Your task to perform on an android device: Do I have any events today? Image 0: 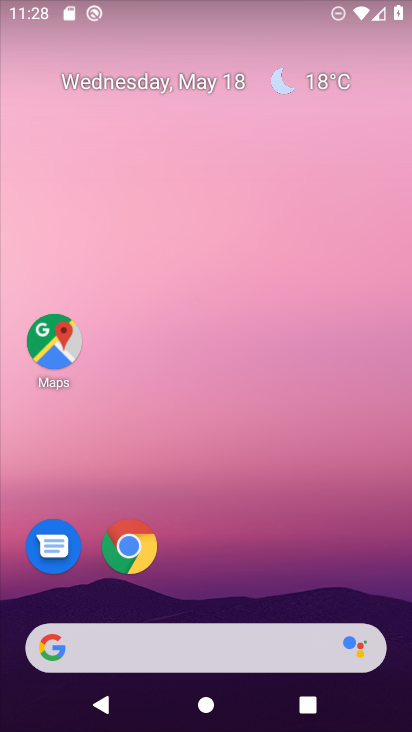
Step 0: drag from (223, 726) to (192, 116)
Your task to perform on an android device: Do I have any events today? Image 1: 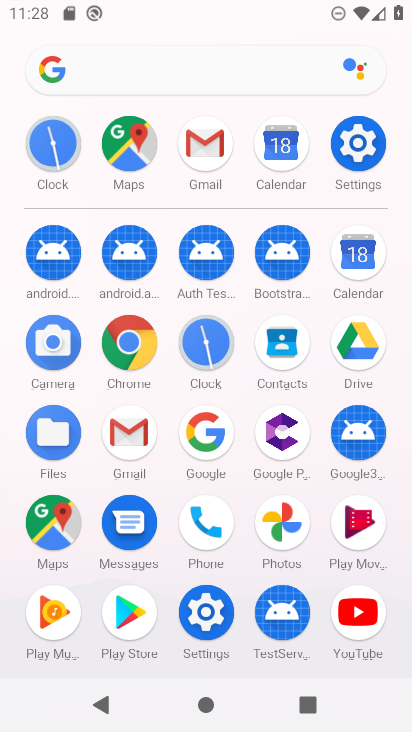
Step 1: click (360, 257)
Your task to perform on an android device: Do I have any events today? Image 2: 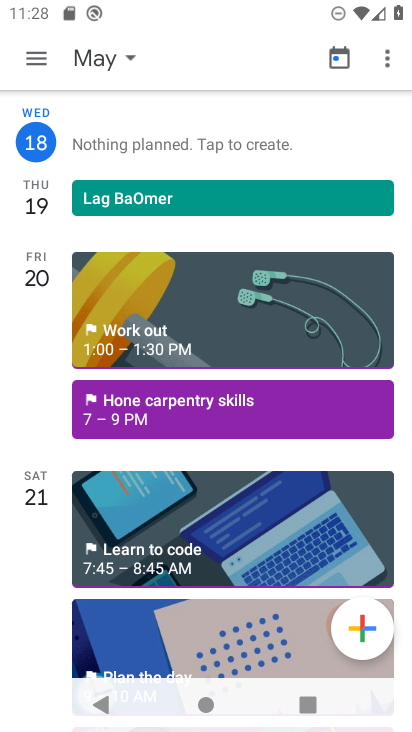
Step 2: click (35, 53)
Your task to perform on an android device: Do I have any events today? Image 3: 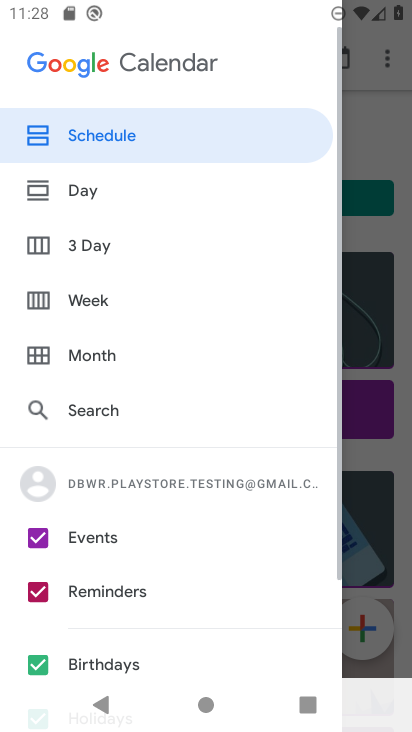
Step 3: drag from (72, 610) to (67, 405)
Your task to perform on an android device: Do I have any events today? Image 4: 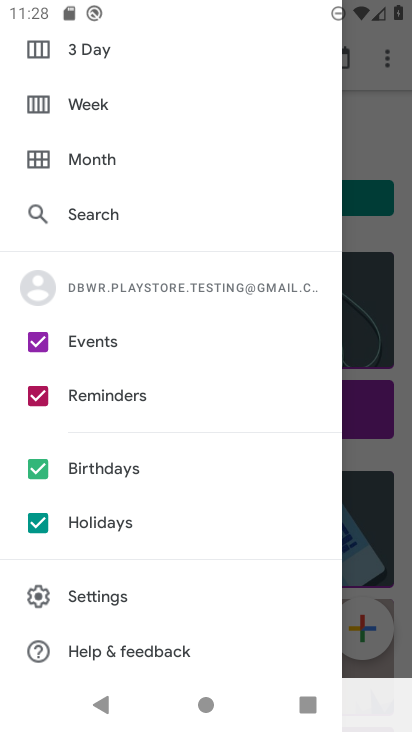
Step 4: click (35, 524)
Your task to perform on an android device: Do I have any events today? Image 5: 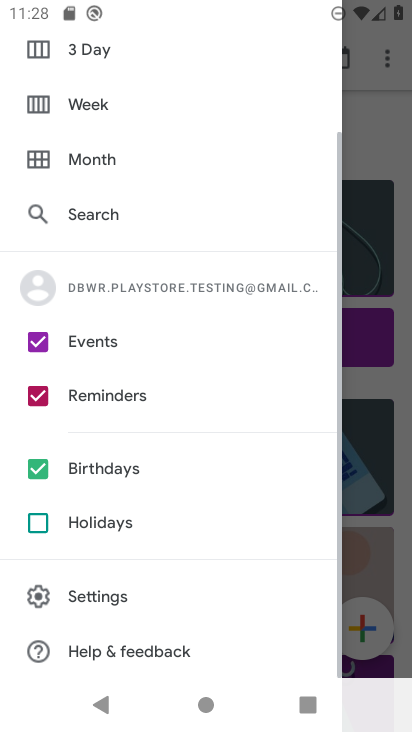
Step 5: click (39, 465)
Your task to perform on an android device: Do I have any events today? Image 6: 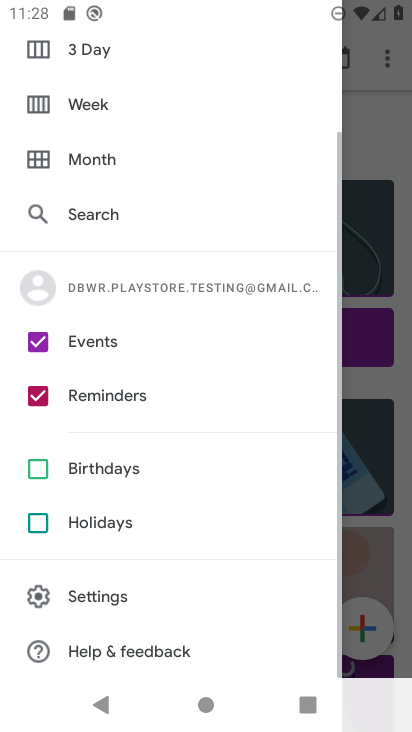
Step 6: click (35, 392)
Your task to perform on an android device: Do I have any events today? Image 7: 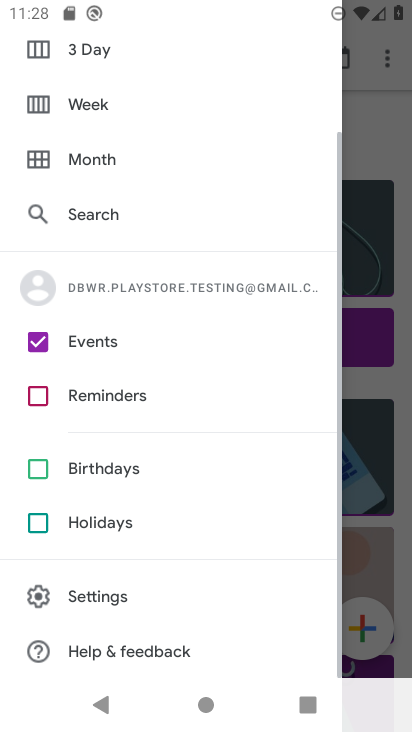
Step 7: drag from (291, 175) to (254, 579)
Your task to perform on an android device: Do I have any events today? Image 8: 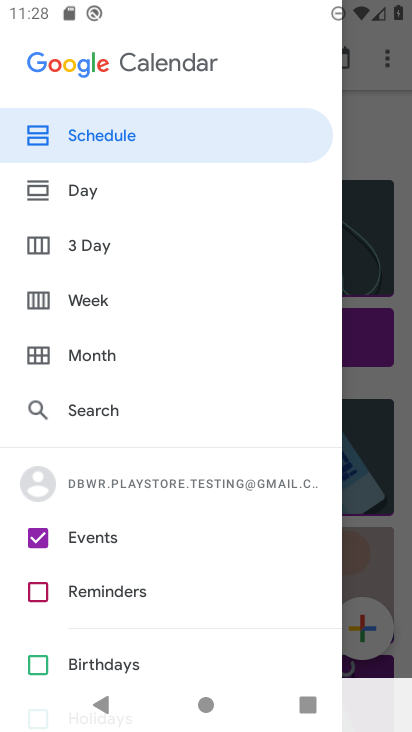
Step 8: click (100, 140)
Your task to perform on an android device: Do I have any events today? Image 9: 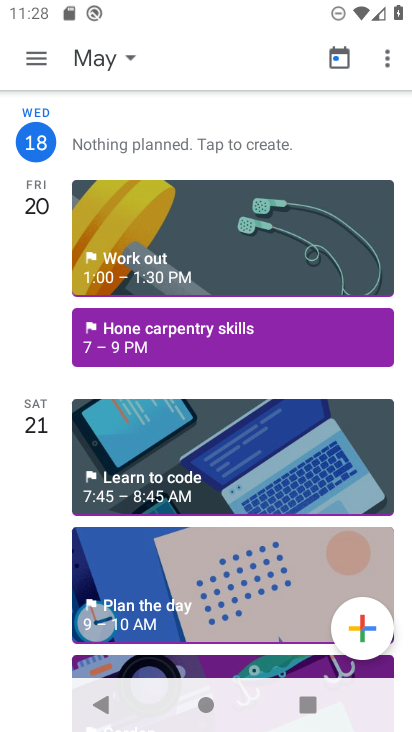
Step 9: click (99, 59)
Your task to perform on an android device: Do I have any events today? Image 10: 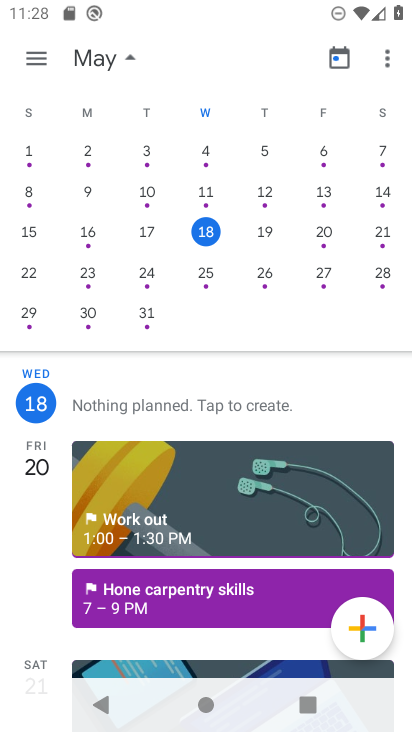
Step 10: click (211, 223)
Your task to perform on an android device: Do I have any events today? Image 11: 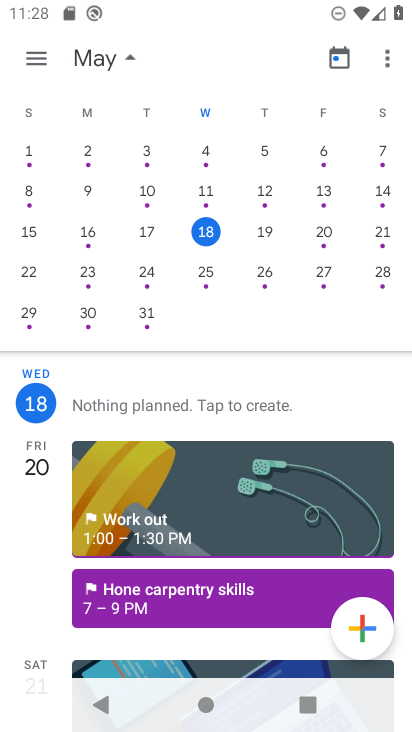
Step 11: click (207, 228)
Your task to perform on an android device: Do I have any events today? Image 12: 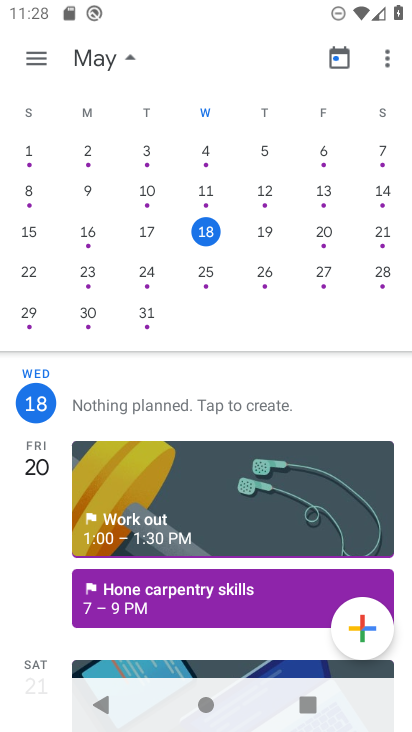
Step 12: click (133, 54)
Your task to perform on an android device: Do I have any events today? Image 13: 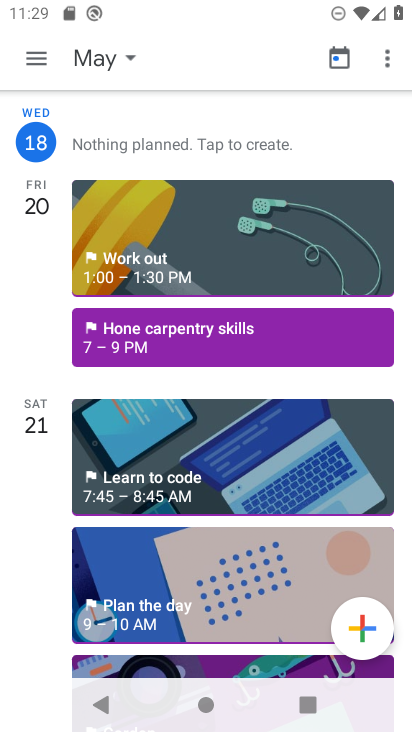
Step 13: task complete